Your task to perform on an android device: change the upload size in google photos Image 0: 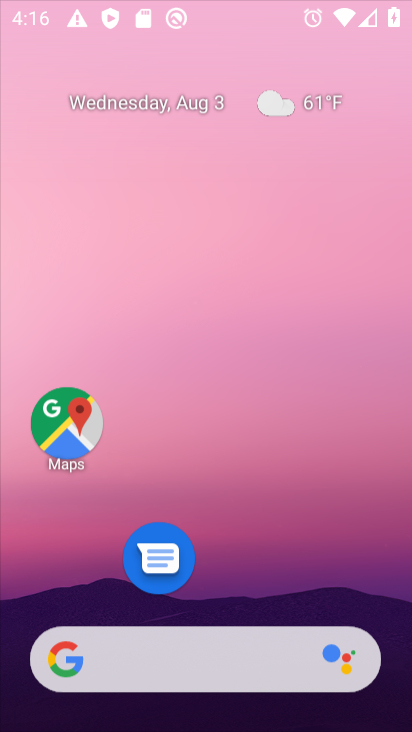
Step 0: drag from (216, 540) to (222, 137)
Your task to perform on an android device: change the upload size in google photos Image 1: 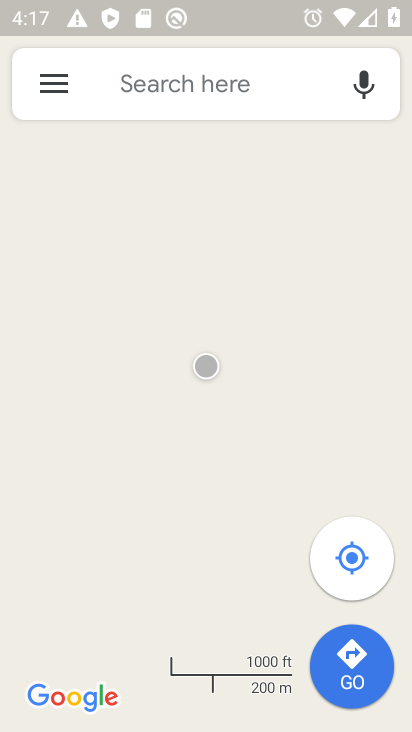
Step 1: press home button
Your task to perform on an android device: change the upload size in google photos Image 2: 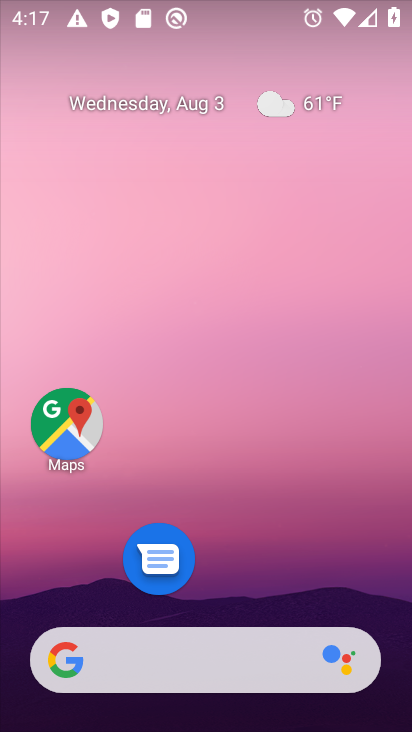
Step 2: drag from (199, 637) to (215, 173)
Your task to perform on an android device: change the upload size in google photos Image 3: 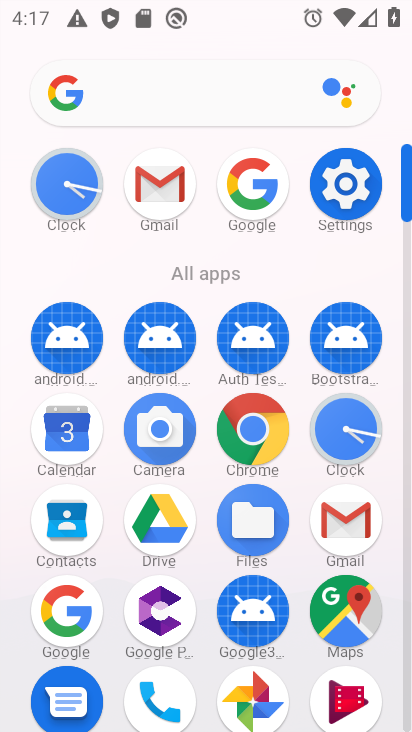
Step 3: click (257, 692)
Your task to perform on an android device: change the upload size in google photos Image 4: 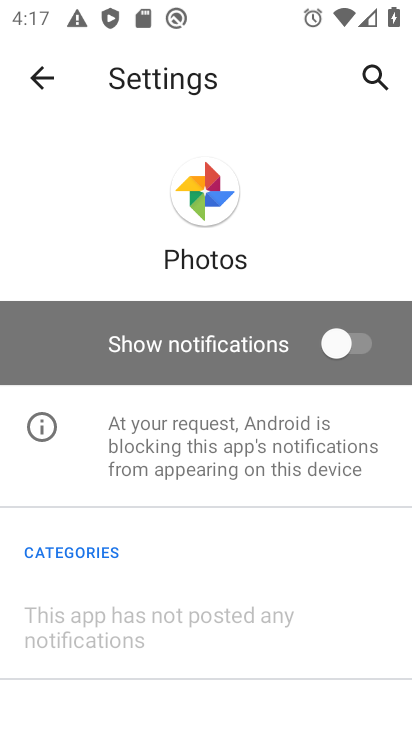
Step 4: click (40, 74)
Your task to perform on an android device: change the upload size in google photos Image 5: 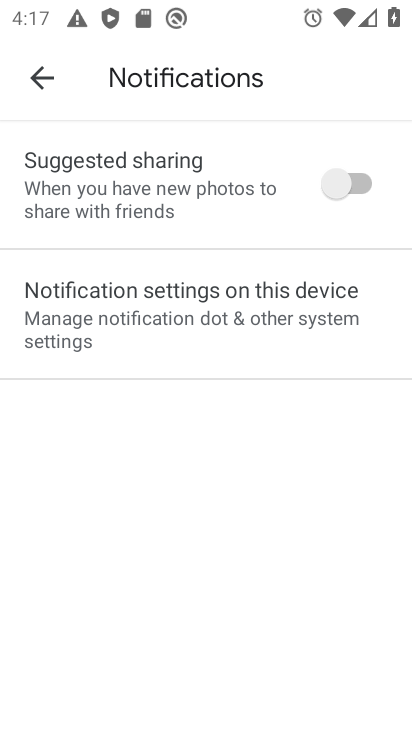
Step 5: click (35, 79)
Your task to perform on an android device: change the upload size in google photos Image 6: 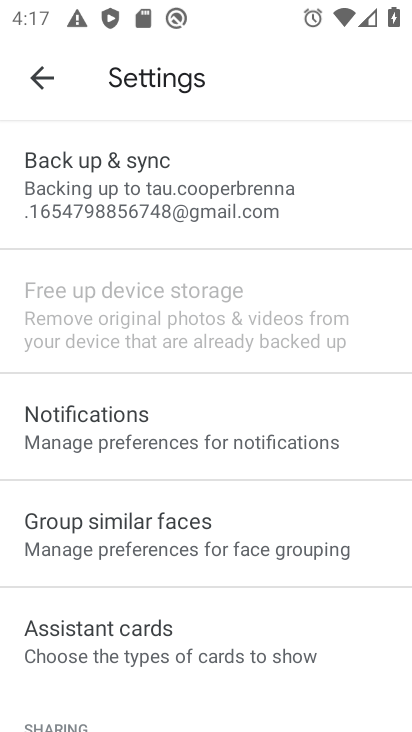
Step 6: click (127, 188)
Your task to perform on an android device: change the upload size in google photos Image 7: 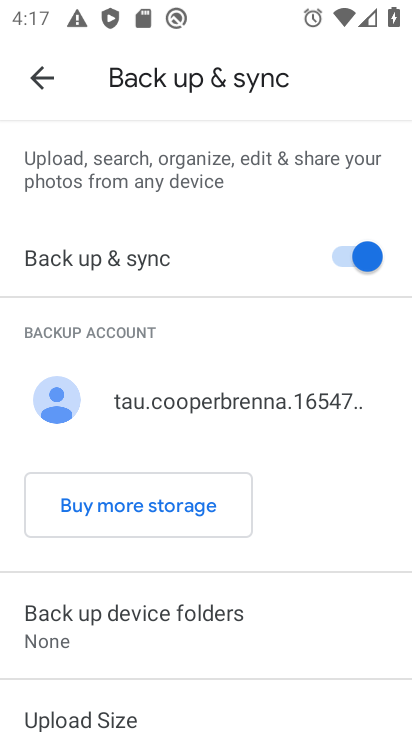
Step 7: drag from (102, 681) to (79, 318)
Your task to perform on an android device: change the upload size in google photos Image 8: 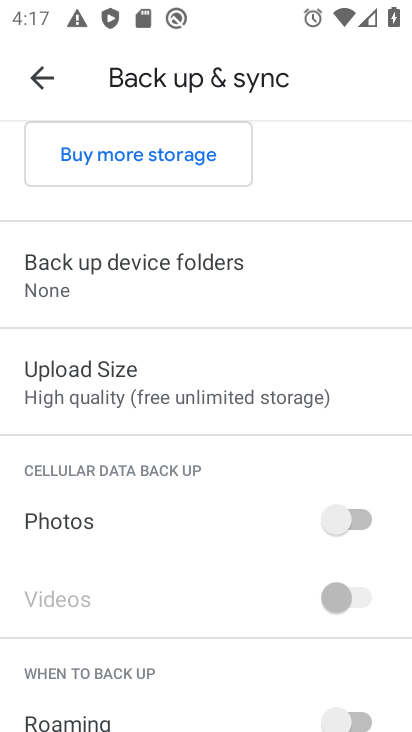
Step 8: click (106, 380)
Your task to perform on an android device: change the upload size in google photos Image 9: 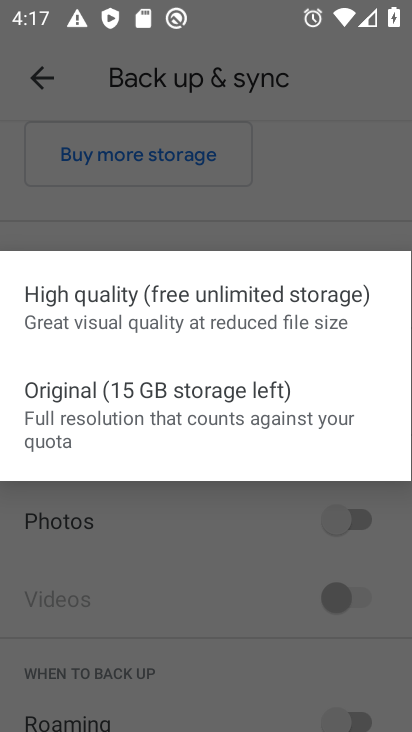
Step 9: click (110, 405)
Your task to perform on an android device: change the upload size in google photos Image 10: 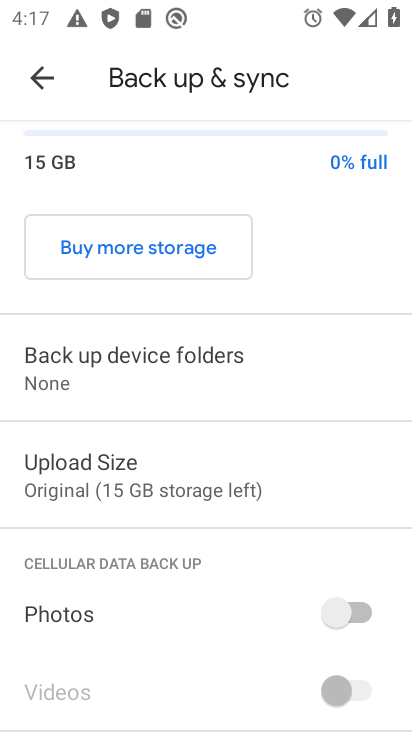
Step 10: task complete